Your task to perform on an android device: Open Yahoo.com Image 0: 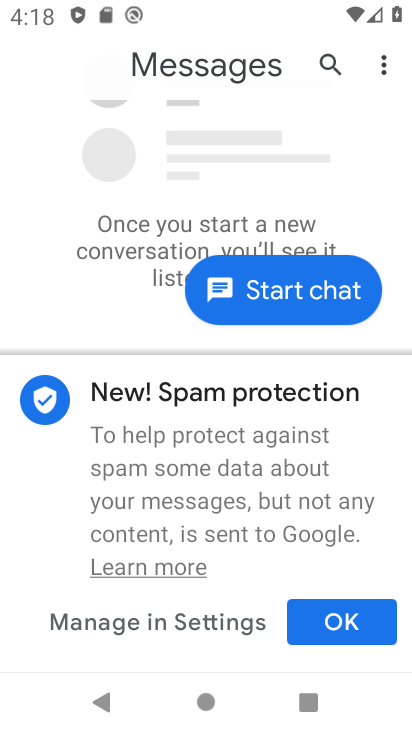
Step 0: press home button
Your task to perform on an android device: Open Yahoo.com Image 1: 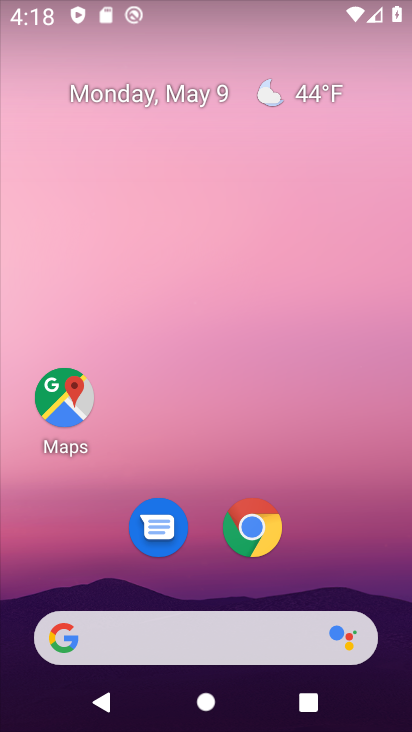
Step 1: click (247, 526)
Your task to perform on an android device: Open Yahoo.com Image 2: 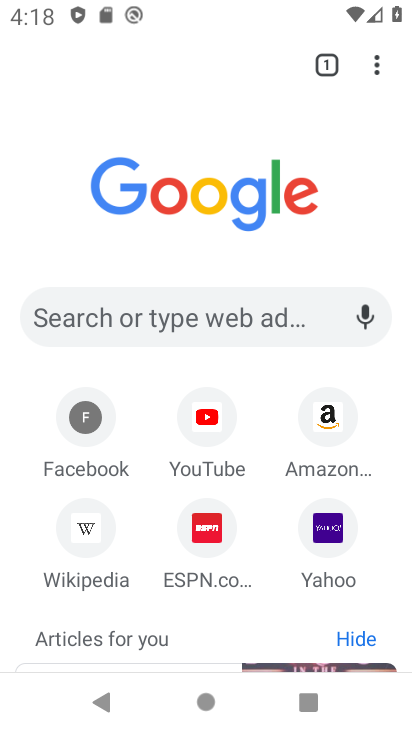
Step 2: click (312, 545)
Your task to perform on an android device: Open Yahoo.com Image 3: 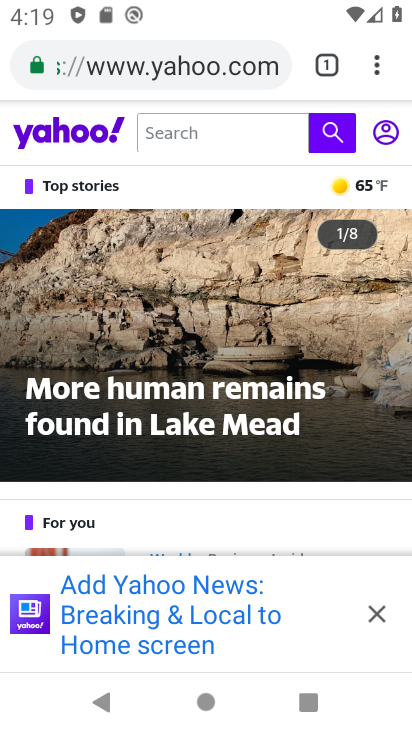
Step 3: task complete